Your task to perform on an android device: turn vacation reply on in the gmail app Image 0: 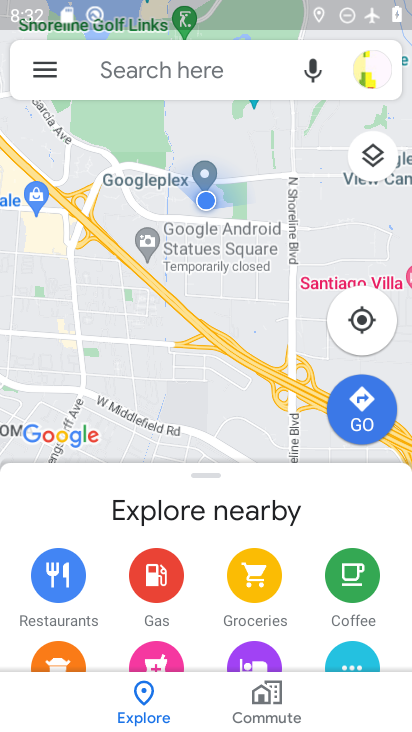
Step 0: press home button
Your task to perform on an android device: turn vacation reply on in the gmail app Image 1: 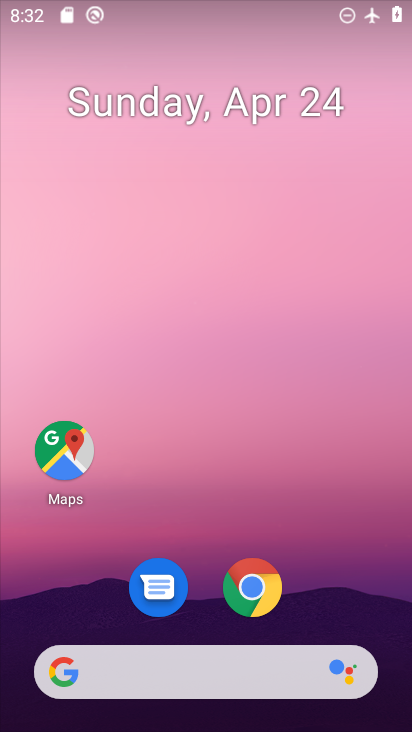
Step 1: drag from (312, 619) to (281, 122)
Your task to perform on an android device: turn vacation reply on in the gmail app Image 2: 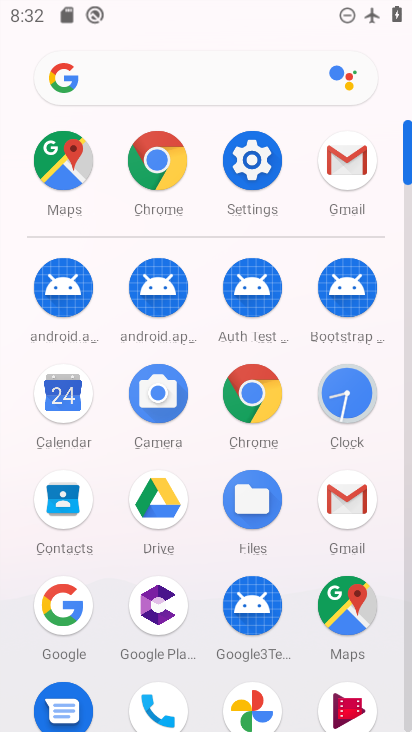
Step 2: click (340, 518)
Your task to perform on an android device: turn vacation reply on in the gmail app Image 3: 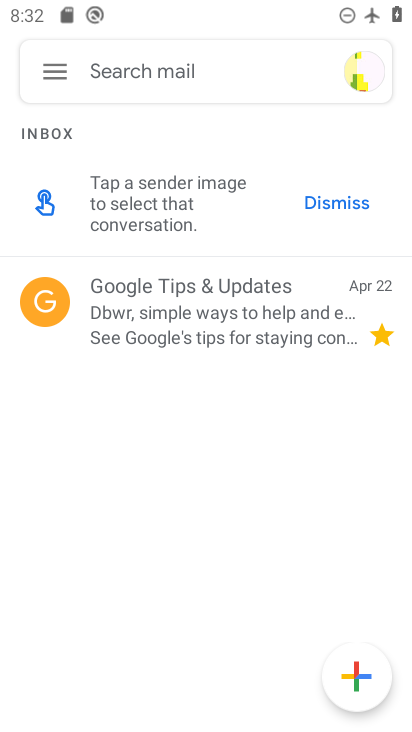
Step 3: click (58, 73)
Your task to perform on an android device: turn vacation reply on in the gmail app Image 4: 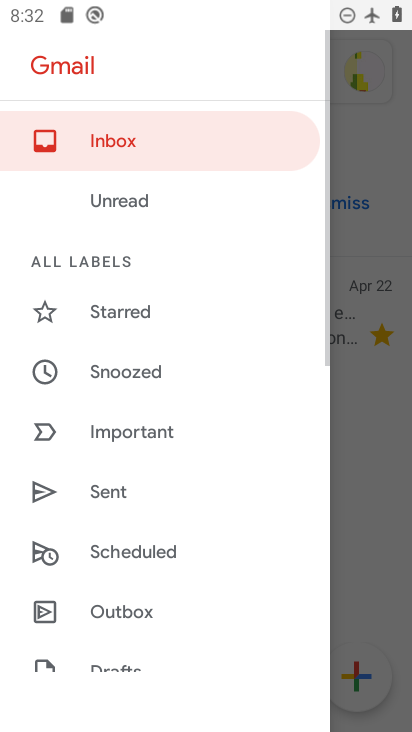
Step 4: drag from (171, 581) to (202, 193)
Your task to perform on an android device: turn vacation reply on in the gmail app Image 5: 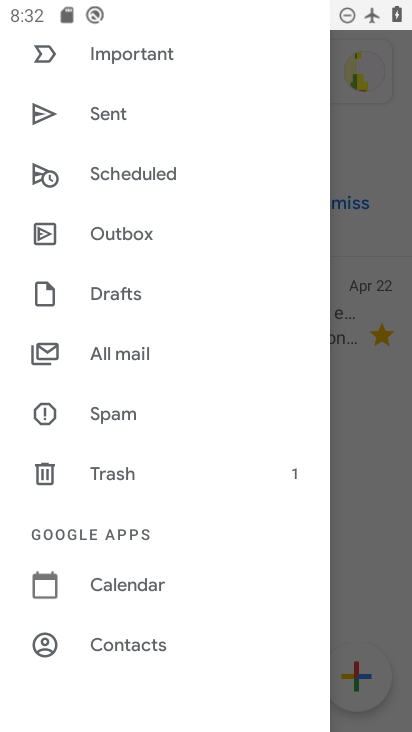
Step 5: drag from (198, 528) to (192, 143)
Your task to perform on an android device: turn vacation reply on in the gmail app Image 6: 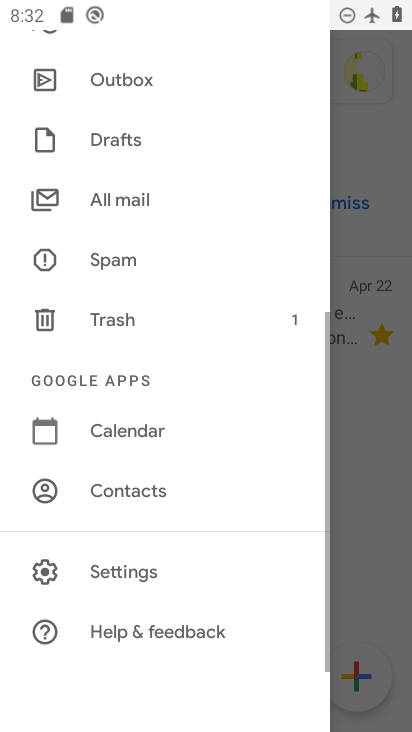
Step 6: click (162, 583)
Your task to perform on an android device: turn vacation reply on in the gmail app Image 7: 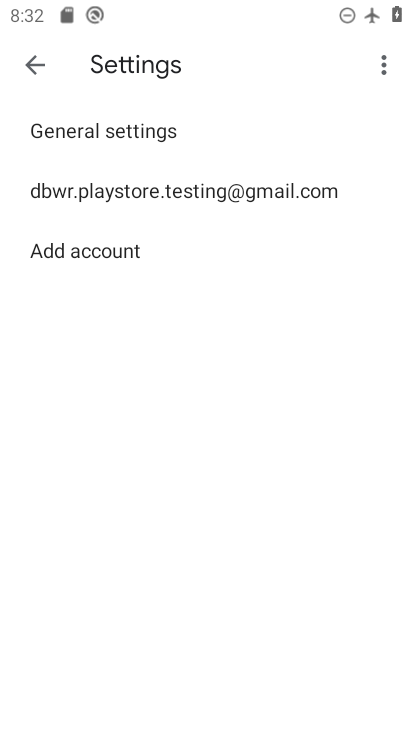
Step 7: click (160, 199)
Your task to perform on an android device: turn vacation reply on in the gmail app Image 8: 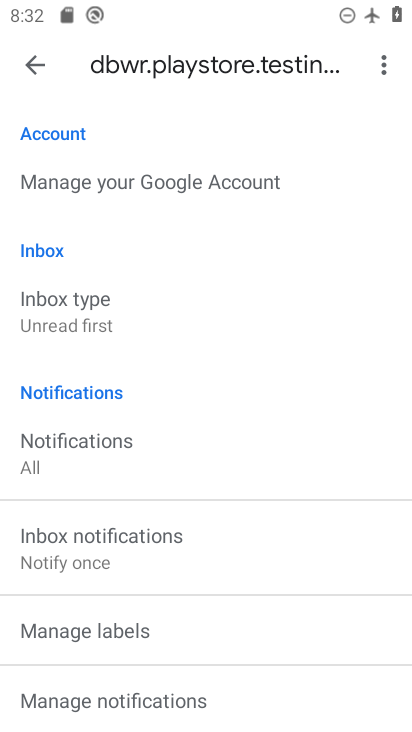
Step 8: drag from (210, 616) to (252, 340)
Your task to perform on an android device: turn vacation reply on in the gmail app Image 9: 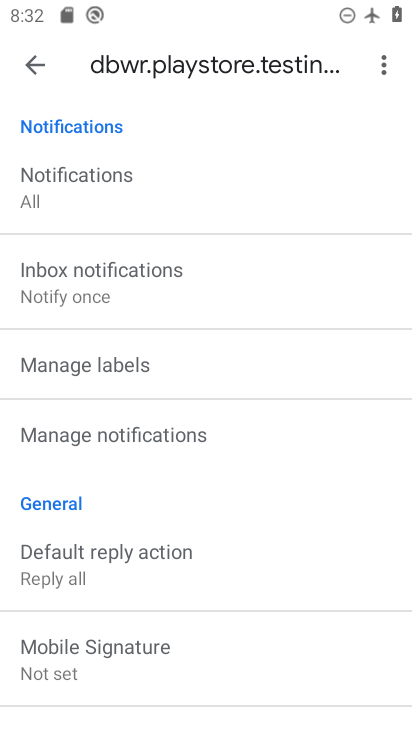
Step 9: drag from (280, 599) to (281, 228)
Your task to perform on an android device: turn vacation reply on in the gmail app Image 10: 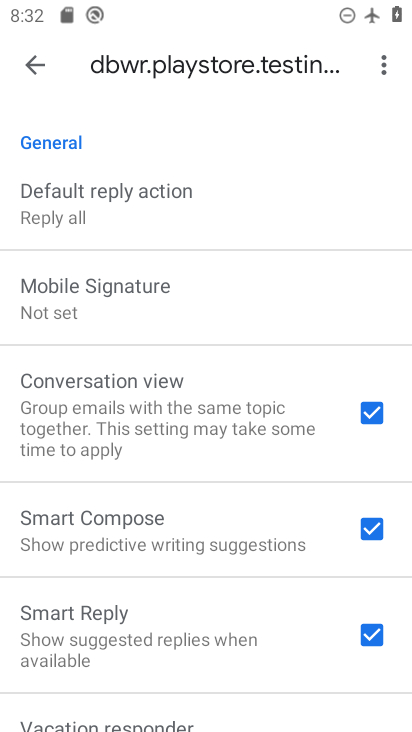
Step 10: drag from (229, 573) to (256, 232)
Your task to perform on an android device: turn vacation reply on in the gmail app Image 11: 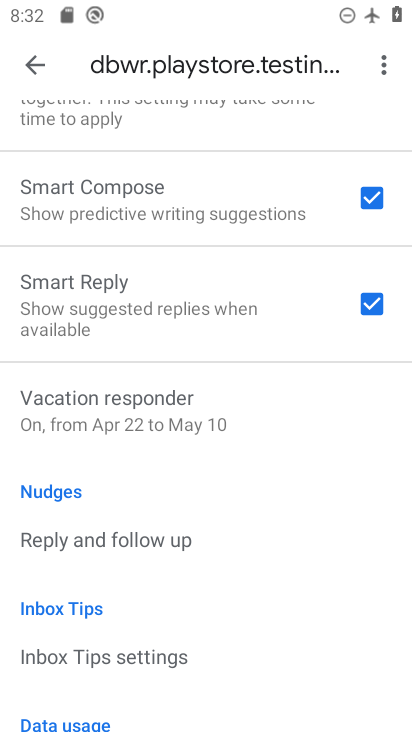
Step 11: click (187, 405)
Your task to perform on an android device: turn vacation reply on in the gmail app Image 12: 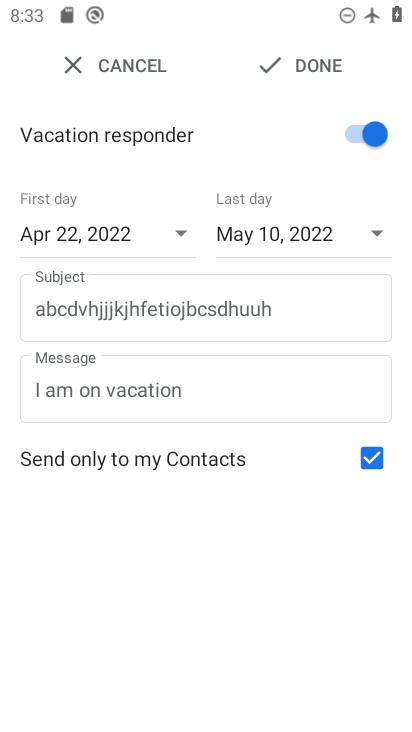
Step 12: task complete